Your task to perform on an android device: all mails in gmail Image 0: 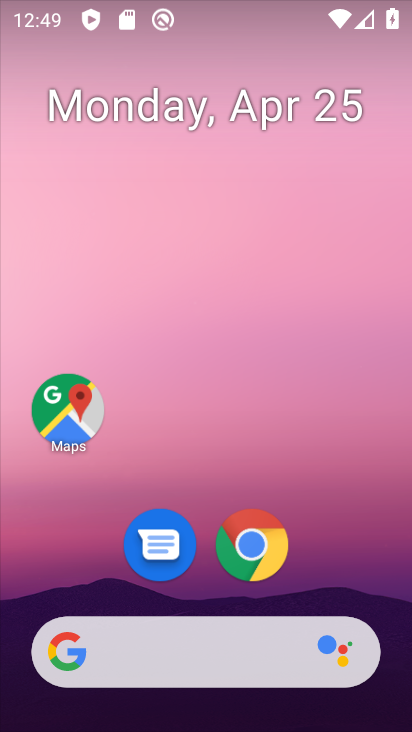
Step 0: drag from (331, 478) to (317, 191)
Your task to perform on an android device: all mails in gmail Image 1: 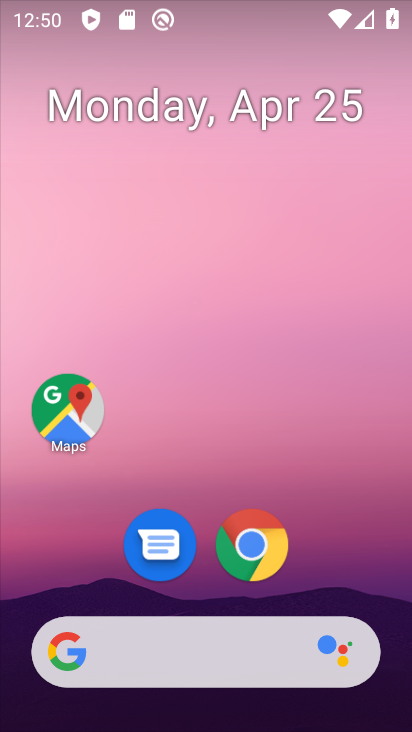
Step 1: drag from (277, 501) to (242, 87)
Your task to perform on an android device: all mails in gmail Image 2: 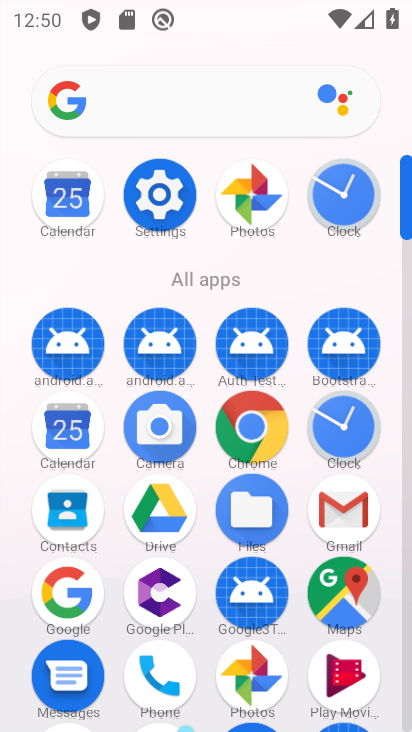
Step 2: click (336, 519)
Your task to perform on an android device: all mails in gmail Image 3: 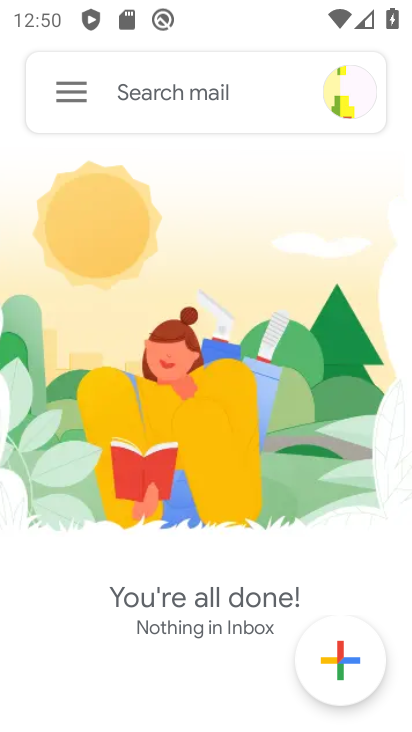
Step 3: click (71, 96)
Your task to perform on an android device: all mails in gmail Image 4: 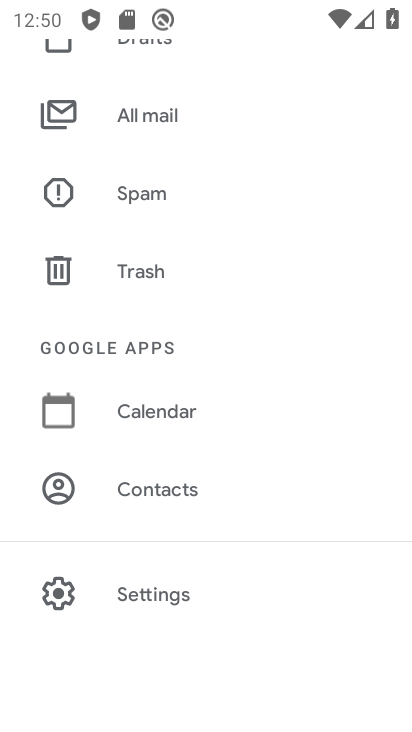
Step 4: click (175, 113)
Your task to perform on an android device: all mails in gmail Image 5: 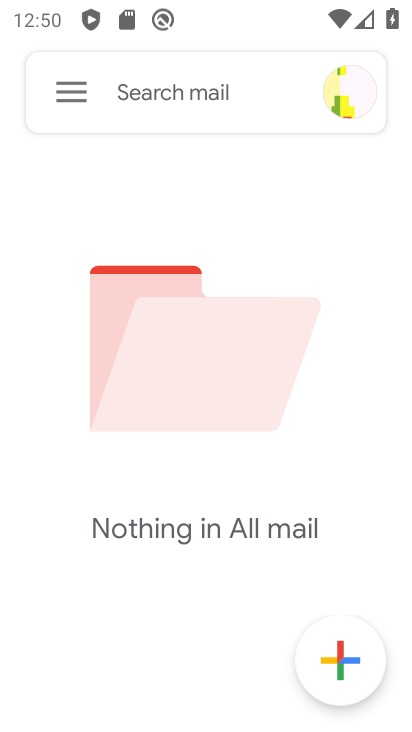
Step 5: task complete